Your task to perform on an android device: turn on wifi Image 0: 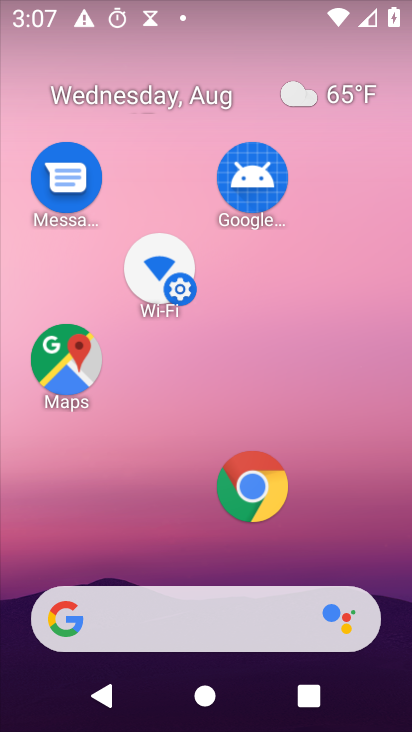
Step 0: drag from (205, 48) to (285, 686)
Your task to perform on an android device: turn on wifi Image 1: 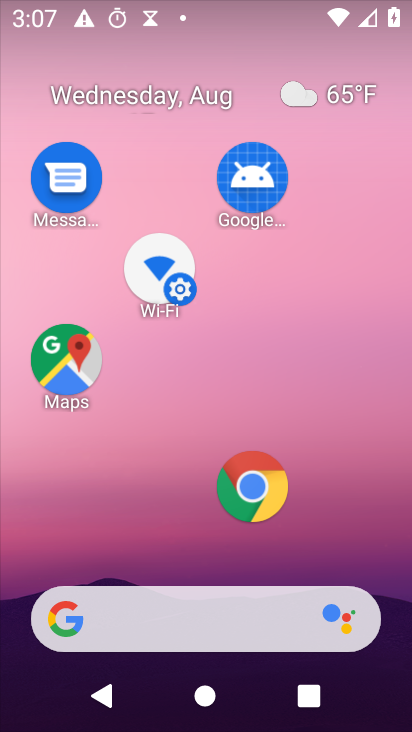
Step 1: task complete